Your task to perform on an android device: Open calendar and show me the fourth week of next month Image 0: 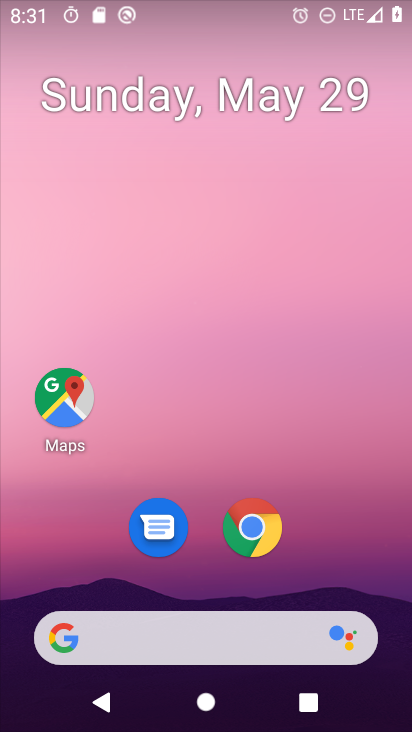
Step 0: drag from (396, 636) to (355, 52)
Your task to perform on an android device: Open calendar and show me the fourth week of next month Image 1: 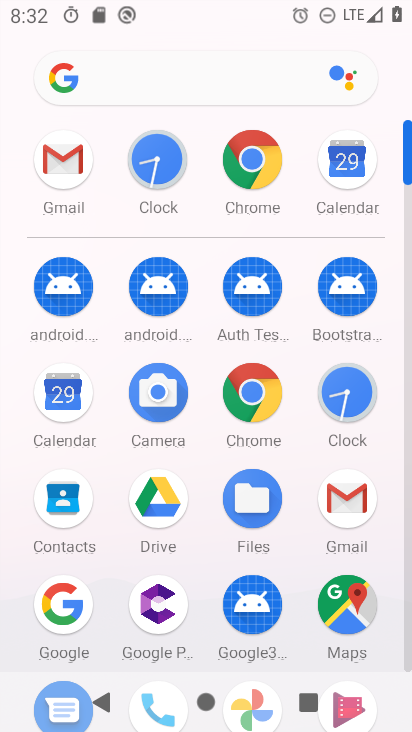
Step 1: click (63, 413)
Your task to perform on an android device: Open calendar and show me the fourth week of next month Image 2: 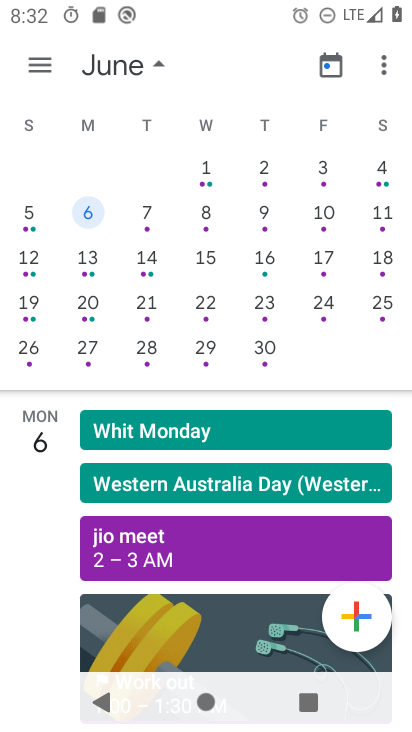
Step 2: drag from (64, 281) to (7, 269)
Your task to perform on an android device: Open calendar and show me the fourth week of next month Image 3: 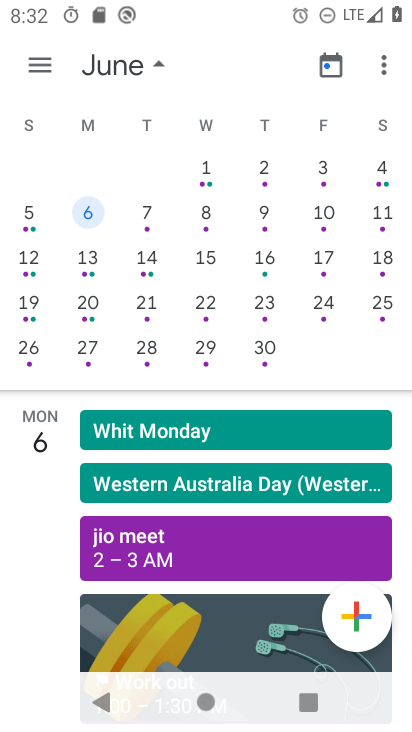
Step 3: drag from (343, 263) to (7, 216)
Your task to perform on an android device: Open calendar and show me the fourth week of next month Image 4: 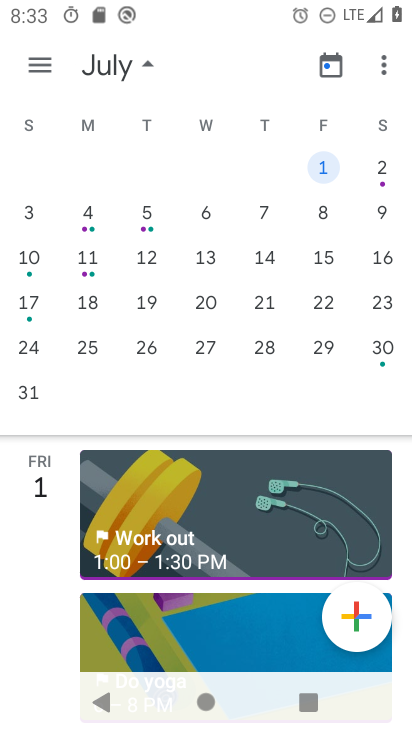
Step 4: click (383, 350)
Your task to perform on an android device: Open calendar and show me the fourth week of next month Image 5: 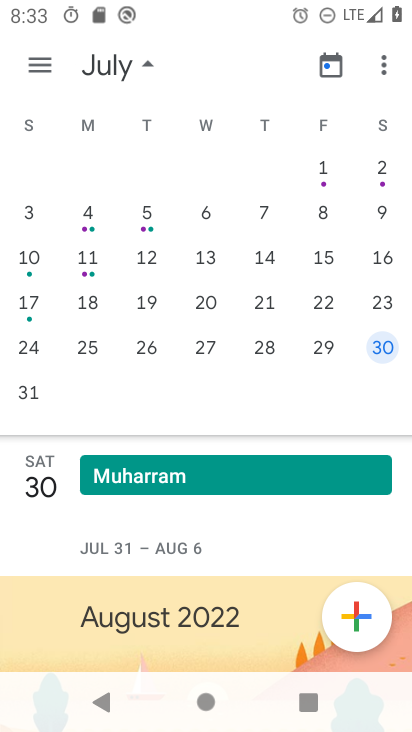
Step 5: task complete